Your task to perform on an android device: toggle priority inbox in the gmail app Image 0: 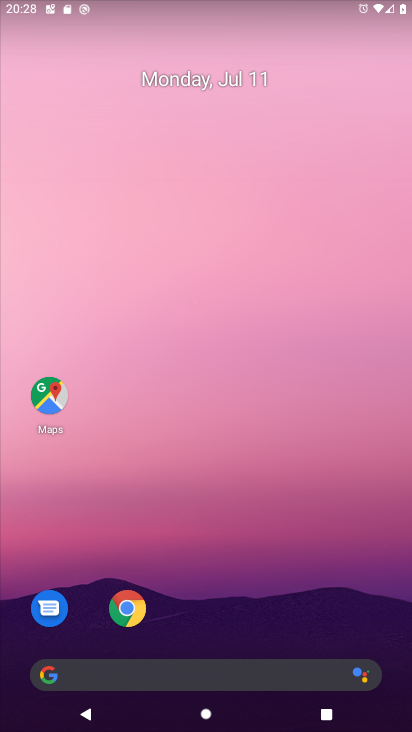
Step 0: drag from (264, 640) to (225, 169)
Your task to perform on an android device: toggle priority inbox in the gmail app Image 1: 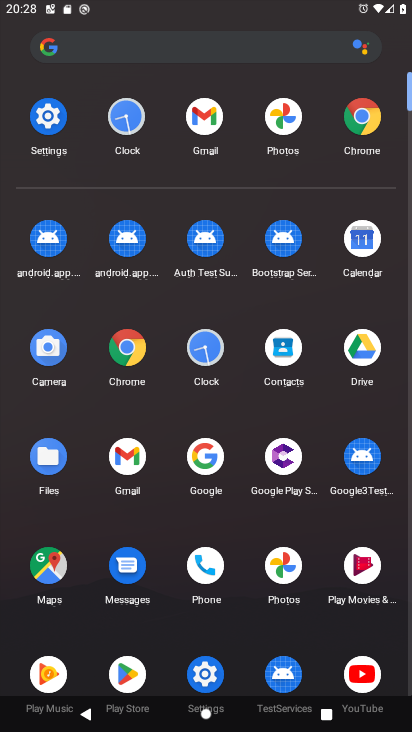
Step 1: click (195, 142)
Your task to perform on an android device: toggle priority inbox in the gmail app Image 2: 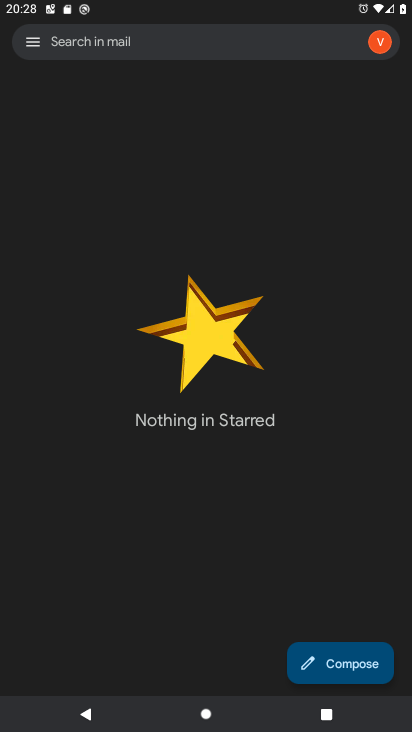
Step 2: click (40, 38)
Your task to perform on an android device: toggle priority inbox in the gmail app Image 3: 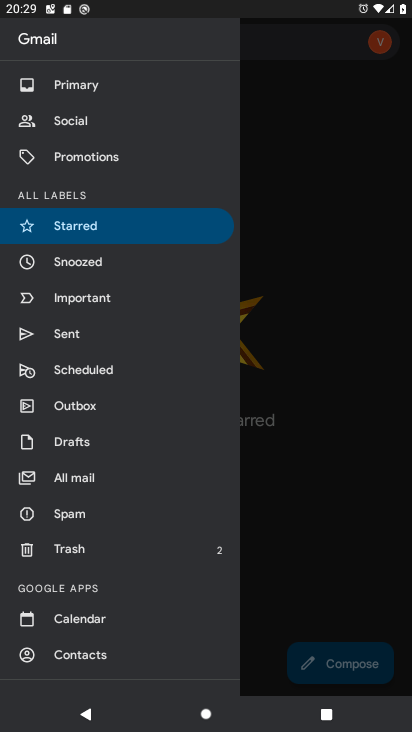
Step 3: drag from (79, 627) to (71, 0)
Your task to perform on an android device: toggle priority inbox in the gmail app Image 4: 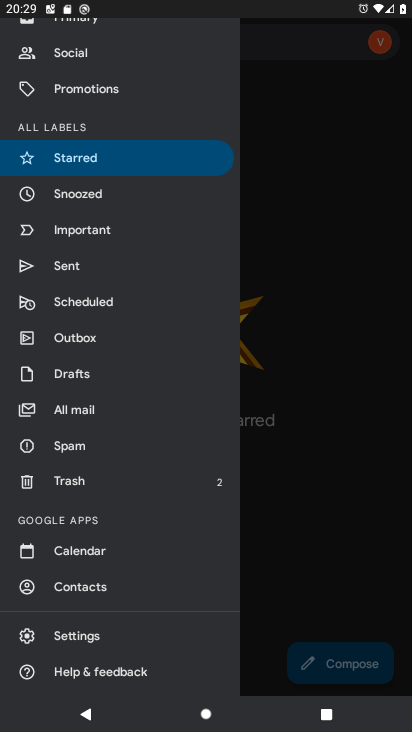
Step 4: click (88, 620)
Your task to perform on an android device: toggle priority inbox in the gmail app Image 5: 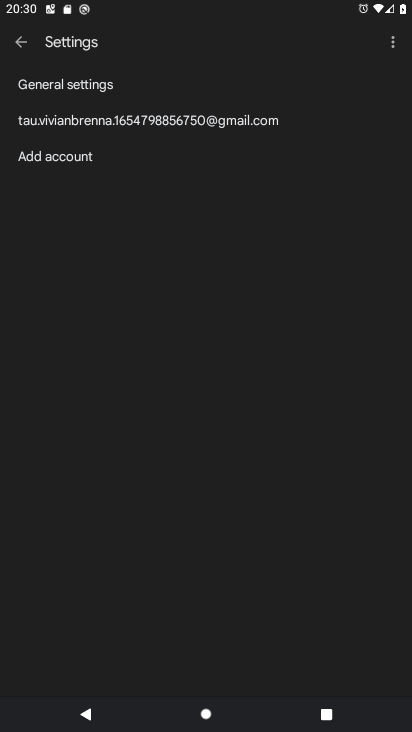
Step 5: click (89, 121)
Your task to perform on an android device: toggle priority inbox in the gmail app Image 6: 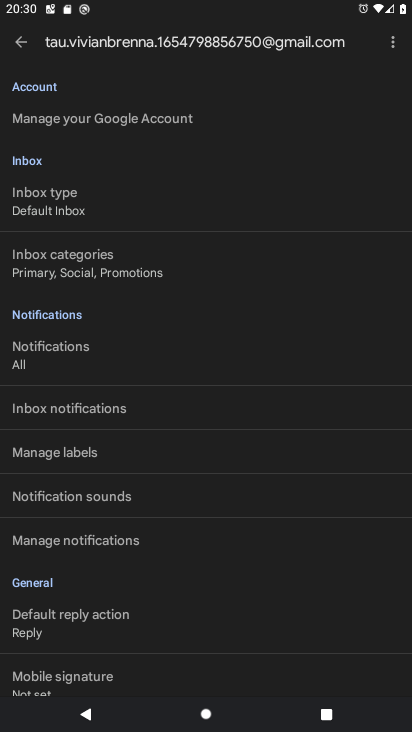
Step 6: drag from (79, 633) to (77, 579)
Your task to perform on an android device: toggle priority inbox in the gmail app Image 7: 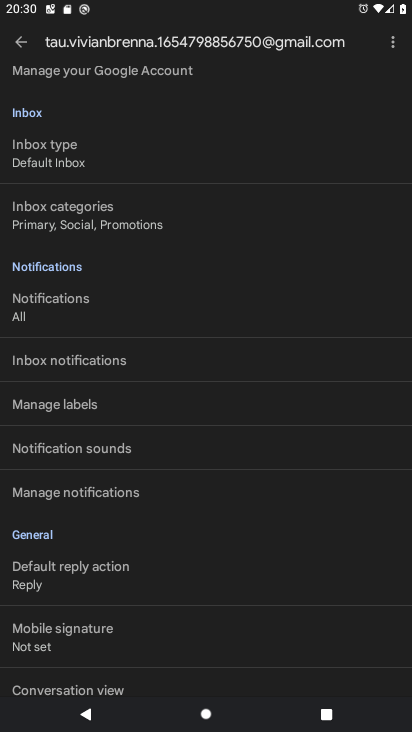
Step 7: click (104, 164)
Your task to perform on an android device: toggle priority inbox in the gmail app Image 8: 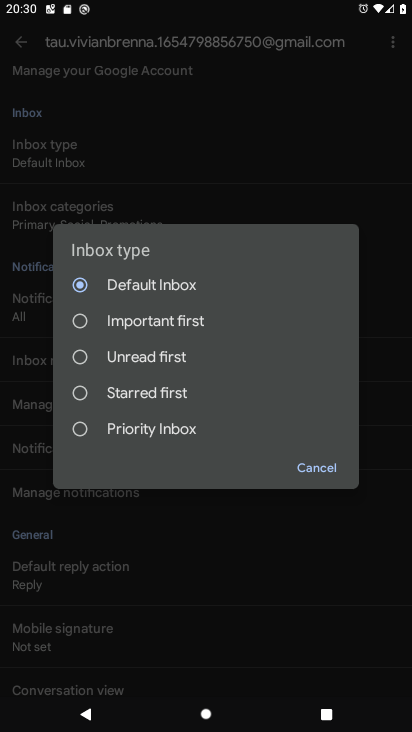
Step 8: click (173, 434)
Your task to perform on an android device: toggle priority inbox in the gmail app Image 9: 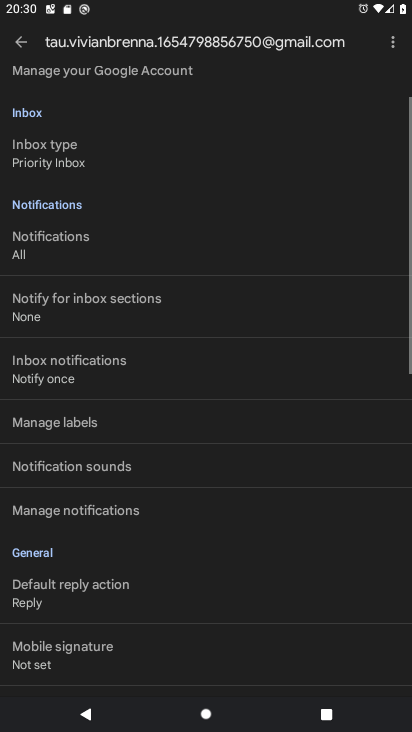
Step 9: task complete